Your task to perform on an android device: set default search engine in the chrome app Image 0: 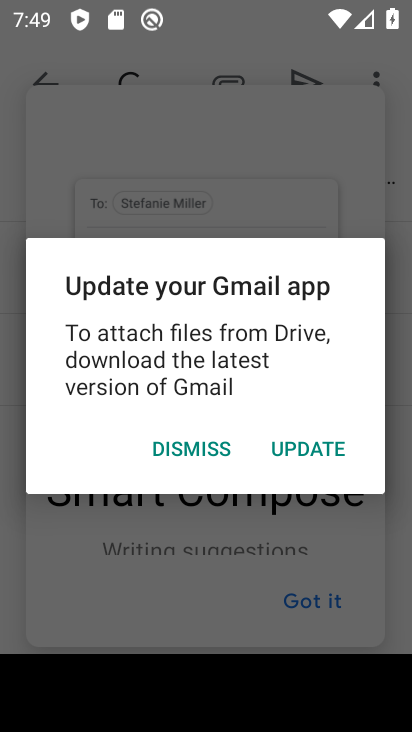
Step 0: press home button
Your task to perform on an android device: set default search engine in the chrome app Image 1: 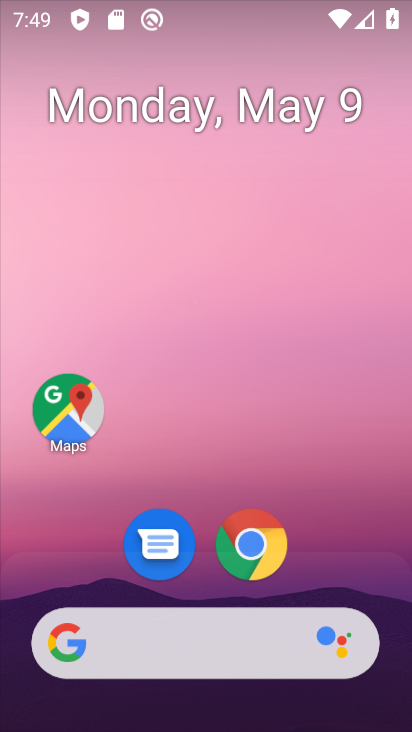
Step 1: click (226, 536)
Your task to perform on an android device: set default search engine in the chrome app Image 2: 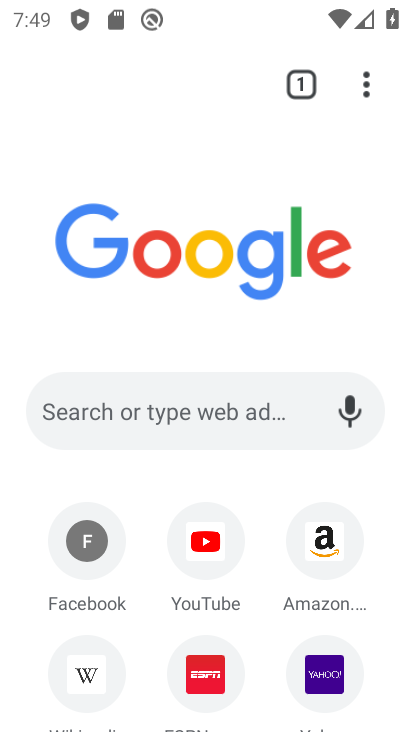
Step 2: drag from (365, 80) to (103, 571)
Your task to perform on an android device: set default search engine in the chrome app Image 3: 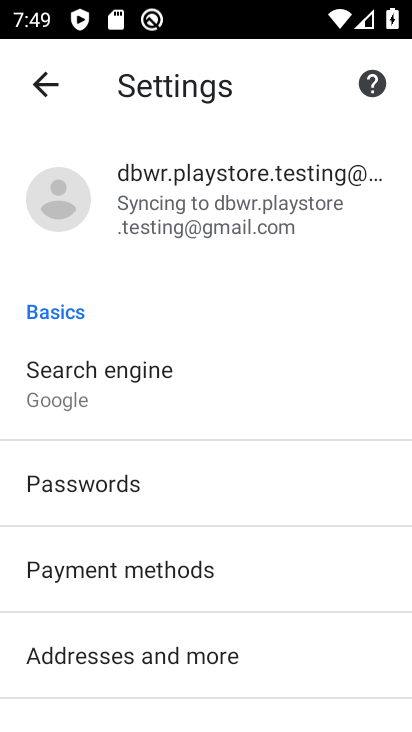
Step 3: click (106, 374)
Your task to perform on an android device: set default search engine in the chrome app Image 4: 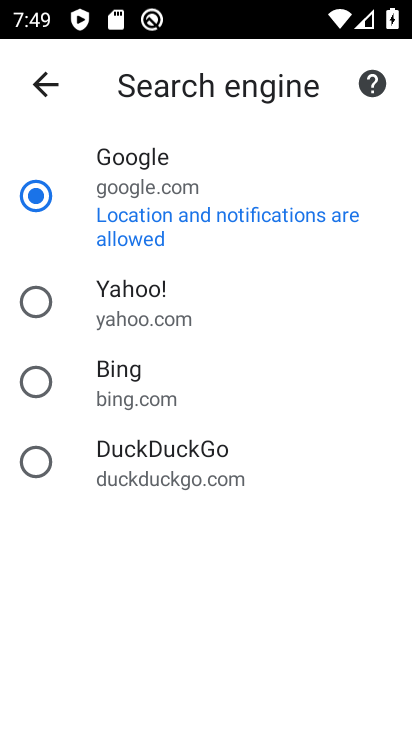
Step 4: click (62, 370)
Your task to perform on an android device: set default search engine in the chrome app Image 5: 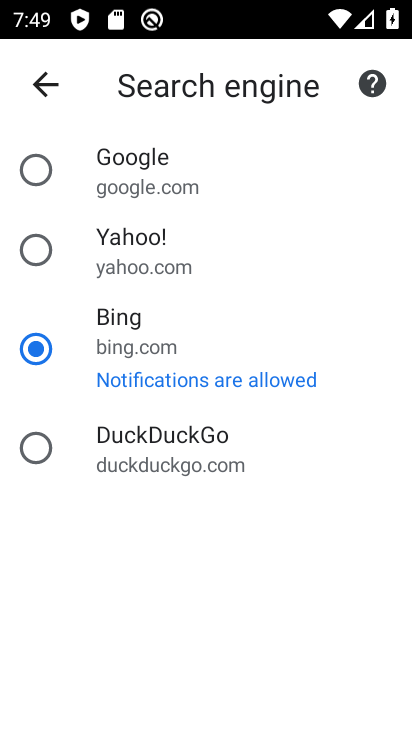
Step 5: task complete